Your task to perform on an android device: What's on my calendar today? Image 0: 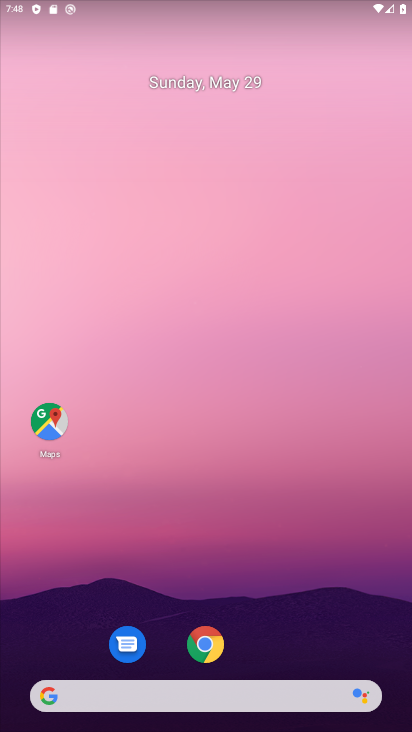
Step 0: drag from (263, 706) to (242, 77)
Your task to perform on an android device: What's on my calendar today? Image 1: 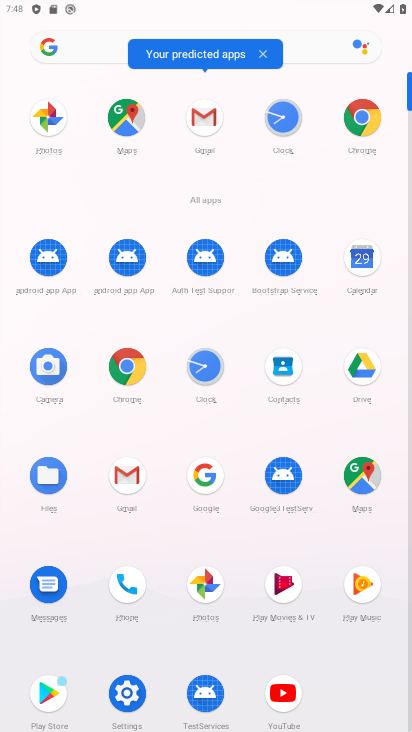
Step 1: click (358, 262)
Your task to perform on an android device: What's on my calendar today? Image 2: 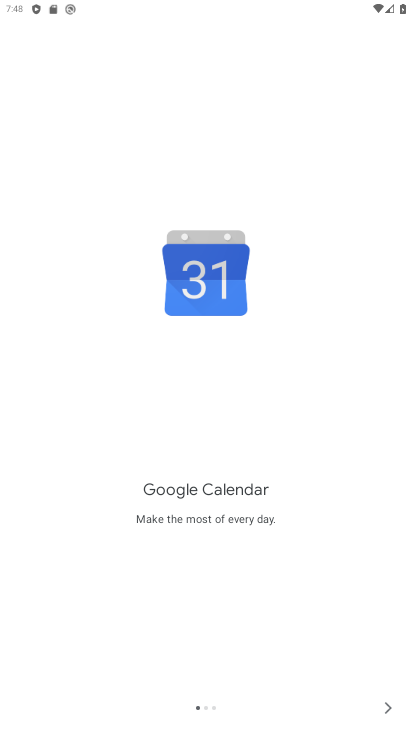
Step 2: click (387, 708)
Your task to perform on an android device: What's on my calendar today? Image 3: 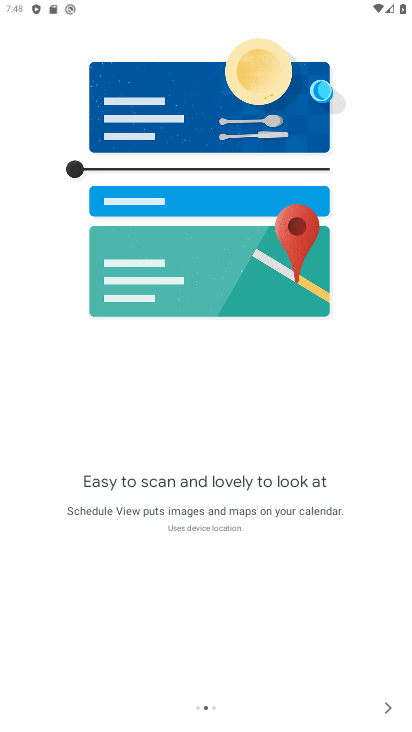
Step 3: click (386, 708)
Your task to perform on an android device: What's on my calendar today? Image 4: 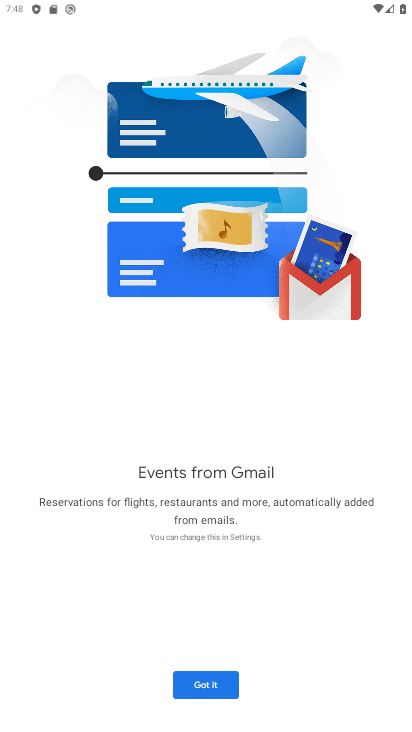
Step 4: click (386, 708)
Your task to perform on an android device: What's on my calendar today? Image 5: 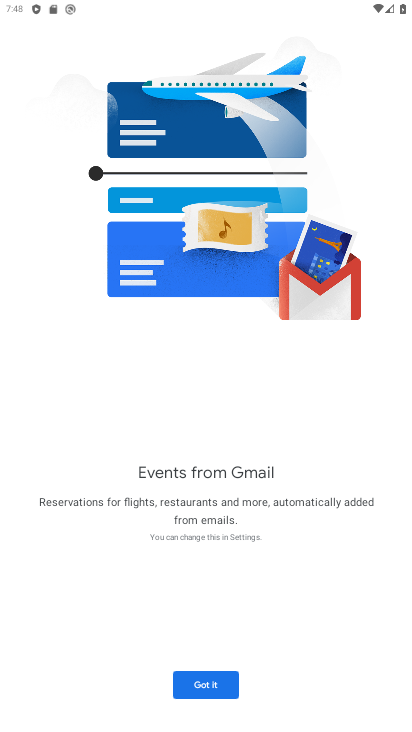
Step 5: click (231, 690)
Your task to perform on an android device: What's on my calendar today? Image 6: 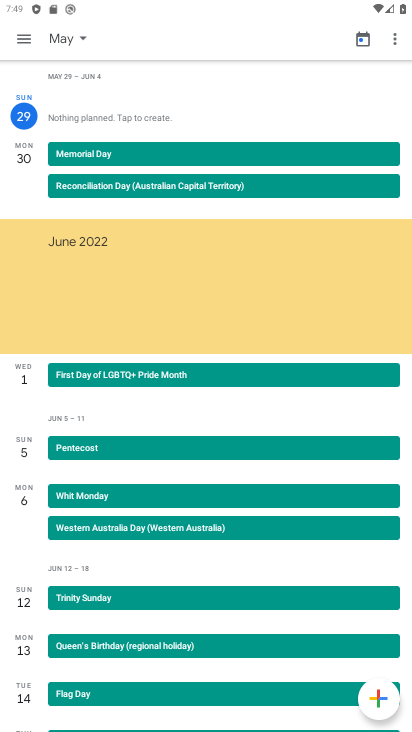
Step 6: task complete